Your task to perform on an android device: choose inbox layout in the gmail app Image 0: 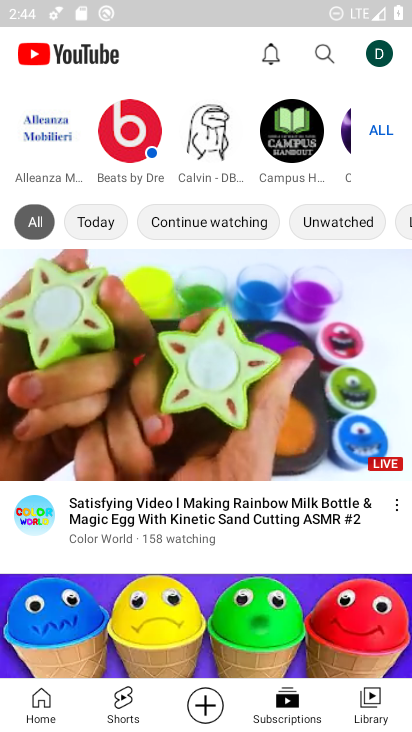
Step 0: press home button
Your task to perform on an android device: choose inbox layout in the gmail app Image 1: 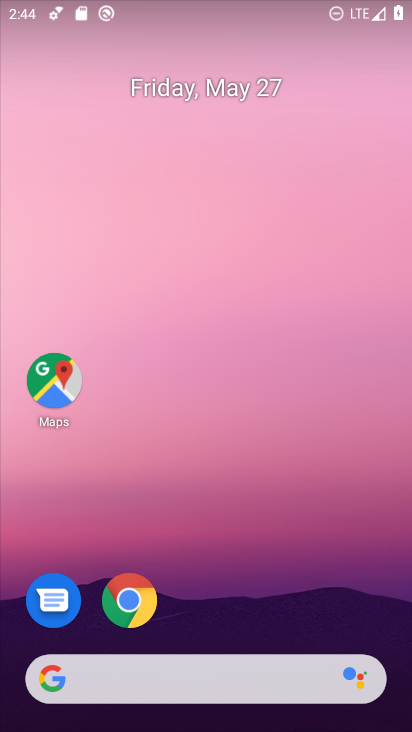
Step 1: drag from (241, 715) to (241, 66)
Your task to perform on an android device: choose inbox layout in the gmail app Image 2: 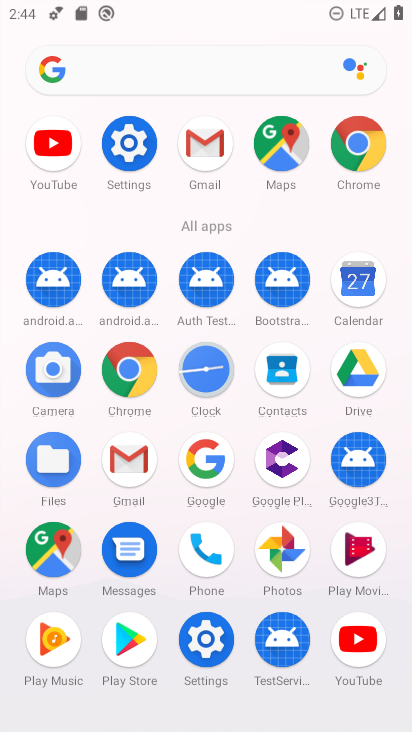
Step 2: click (122, 468)
Your task to perform on an android device: choose inbox layout in the gmail app Image 3: 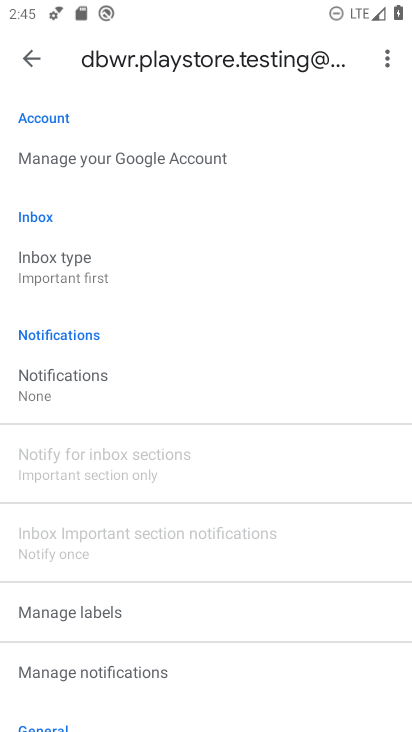
Step 3: click (52, 260)
Your task to perform on an android device: choose inbox layout in the gmail app Image 4: 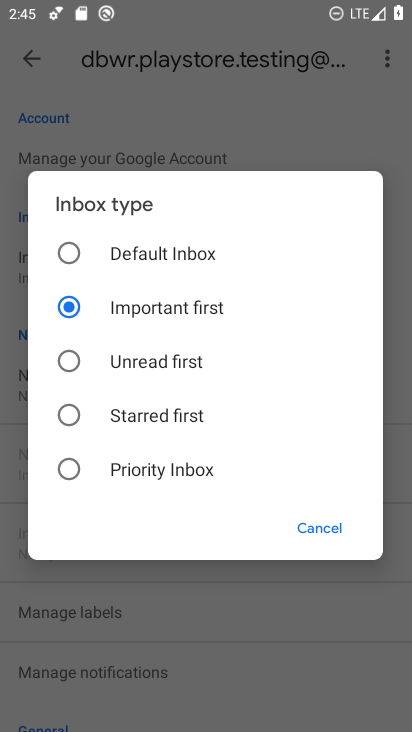
Step 4: click (65, 353)
Your task to perform on an android device: choose inbox layout in the gmail app Image 5: 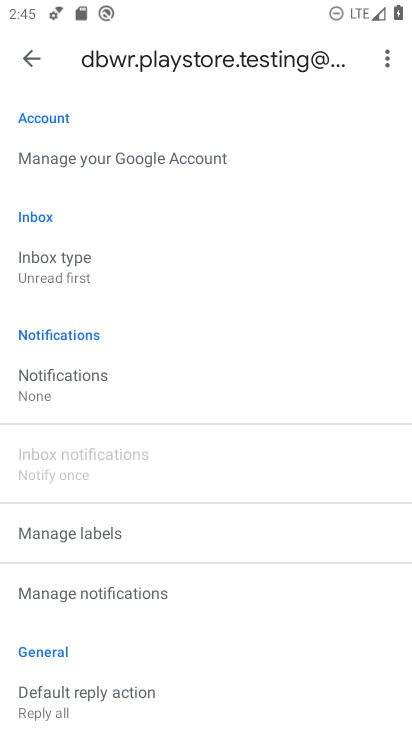
Step 5: task complete